Your task to perform on an android device: open wifi settings Image 0: 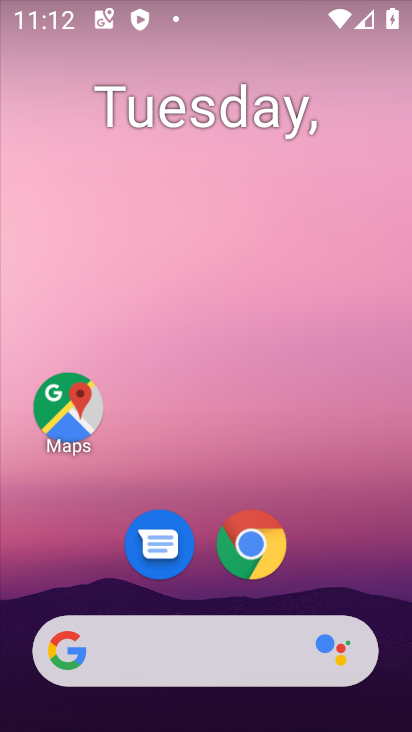
Step 0: drag from (401, 649) to (308, 54)
Your task to perform on an android device: open wifi settings Image 1: 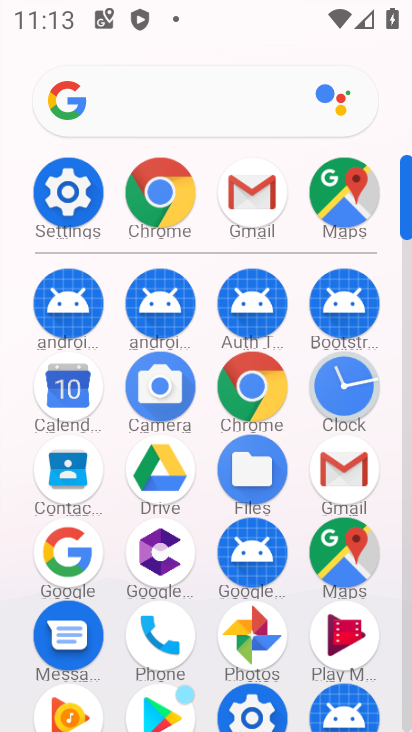
Step 1: click (79, 200)
Your task to perform on an android device: open wifi settings Image 2: 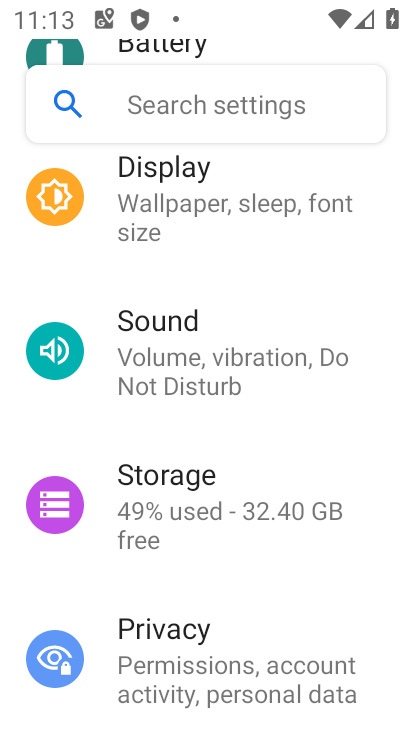
Step 2: drag from (129, 200) to (166, 660)
Your task to perform on an android device: open wifi settings Image 3: 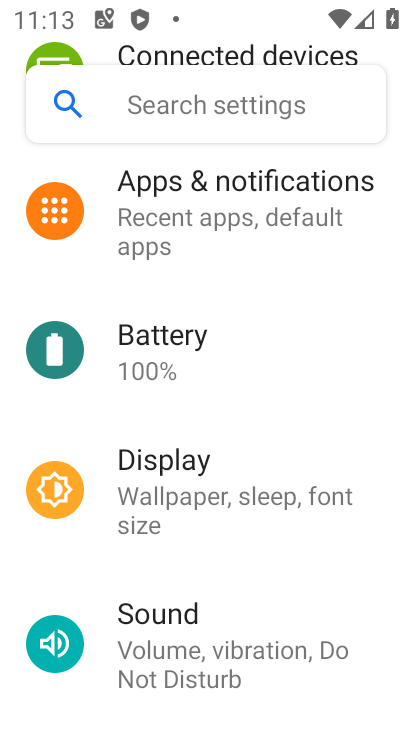
Step 3: drag from (211, 229) to (227, 644)
Your task to perform on an android device: open wifi settings Image 4: 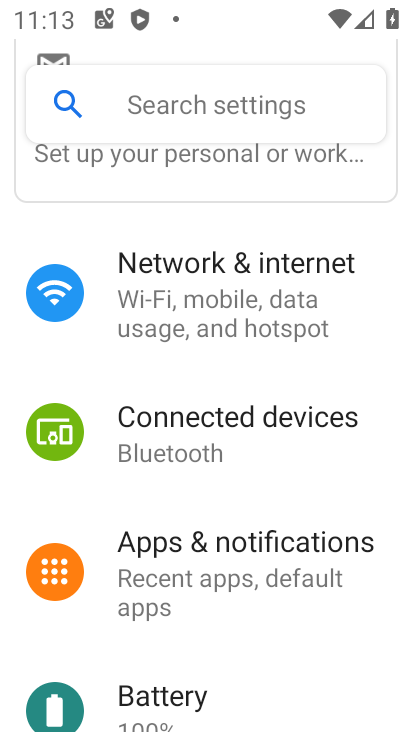
Step 4: click (207, 294)
Your task to perform on an android device: open wifi settings Image 5: 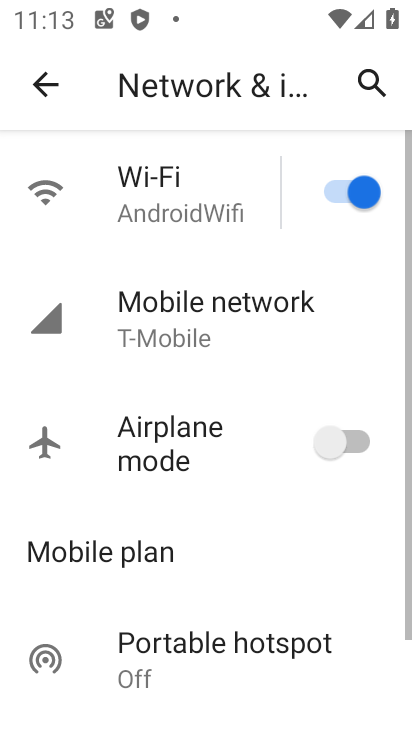
Step 5: click (169, 198)
Your task to perform on an android device: open wifi settings Image 6: 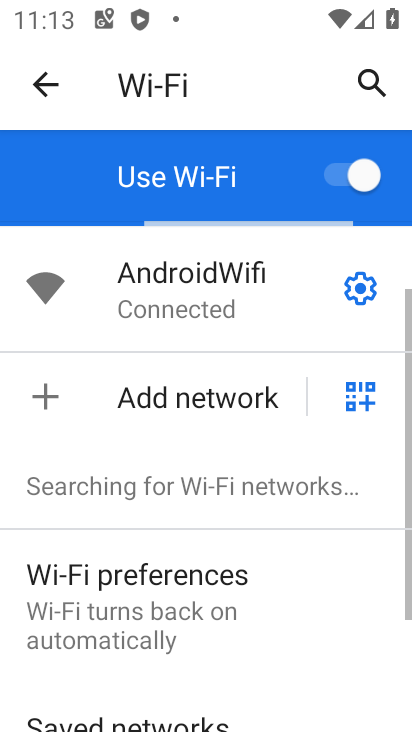
Step 6: task complete